Your task to perform on an android device: check storage Image 0: 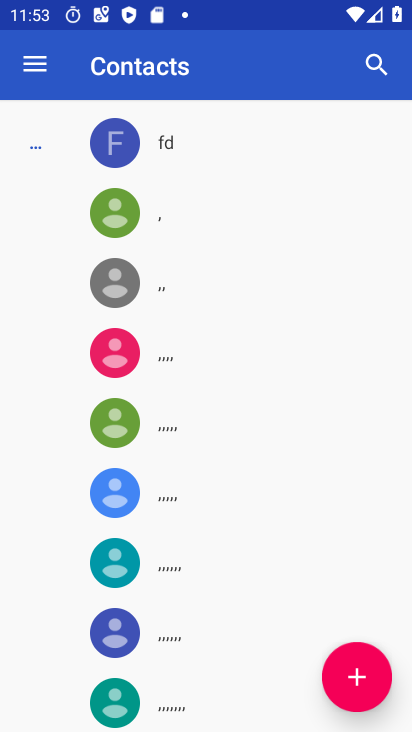
Step 0: press home button
Your task to perform on an android device: check storage Image 1: 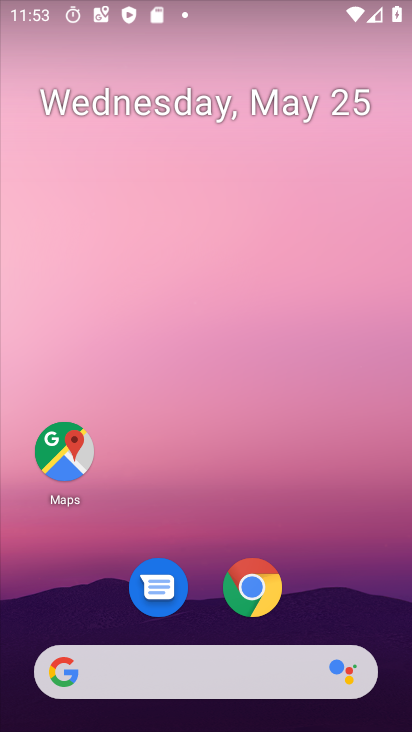
Step 1: drag from (243, 699) to (120, 27)
Your task to perform on an android device: check storage Image 2: 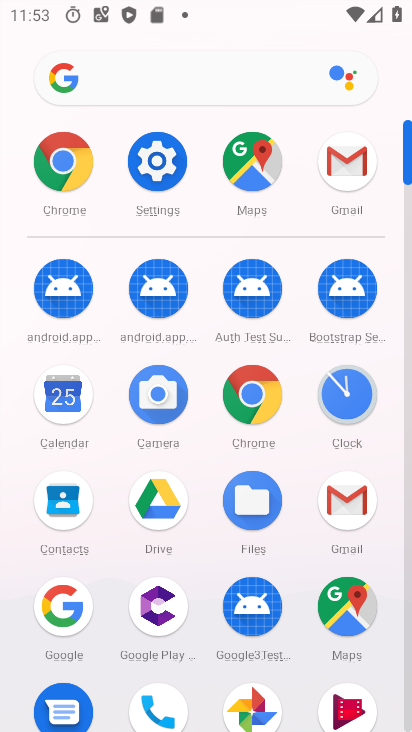
Step 2: click (145, 173)
Your task to perform on an android device: check storage Image 3: 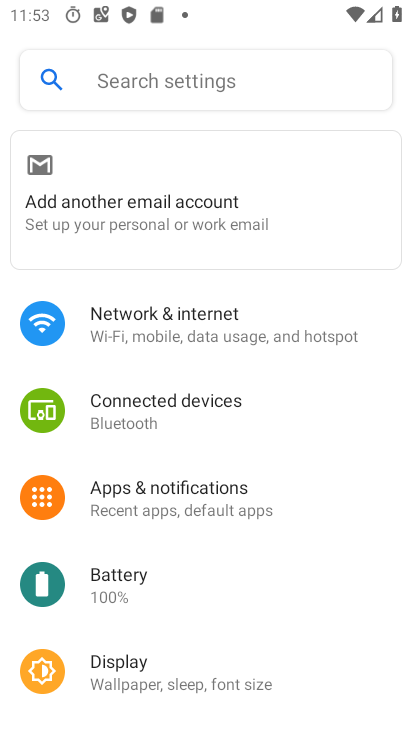
Step 3: click (155, 61)
Your task to perform on an android device: check storage Image 4: 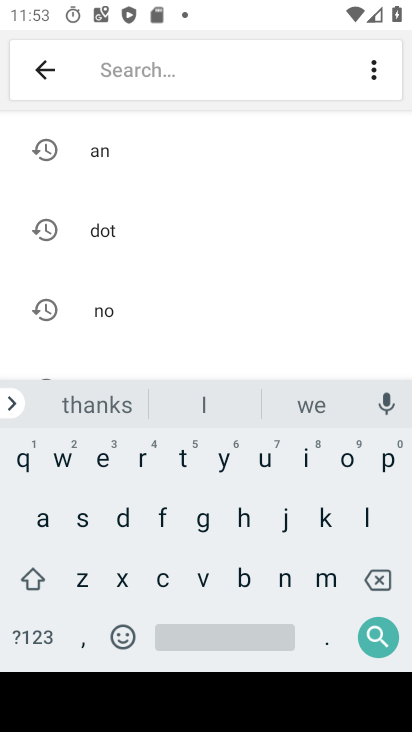
Step 4: click (76, 520)
Your task to perform on an android device: check storage Image 5: 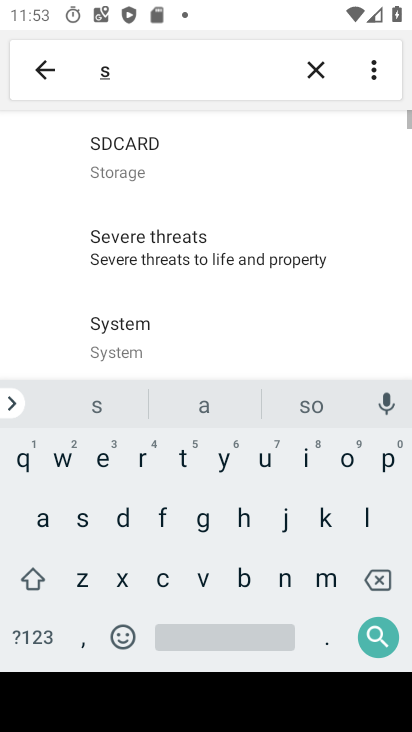
Step 5: click (185, 460)
Your task to perform on an android device: check storage Image 6: 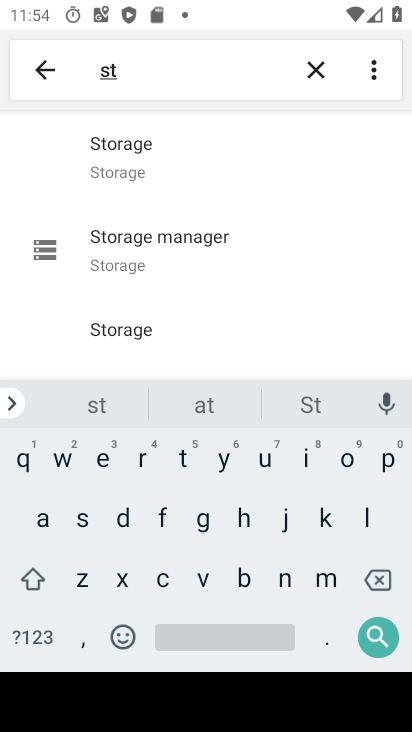
Step 6: click (120, 159)
Your task to perform on an android device: check storage Image 7: 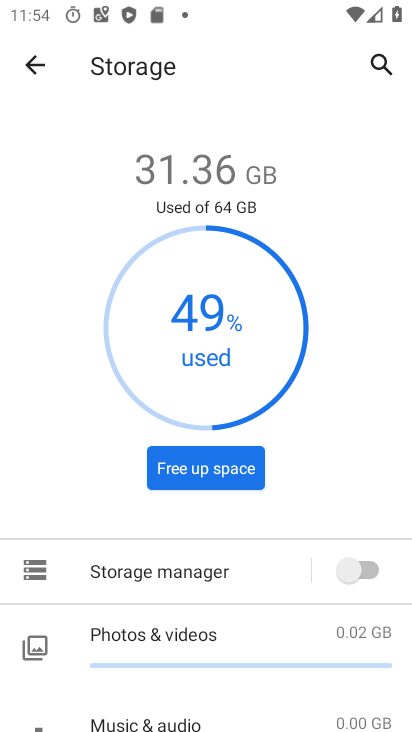
Step 7: task complete